Your task to perform on an android device: turn on the 24-hour format for clock Image 0: 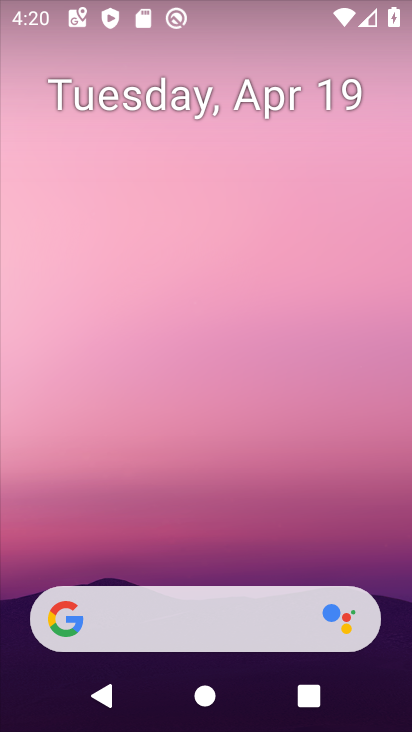
Step 0: drag from (244, 488) to (288, 80)
Your task to perform on an android device: turn on the 24-hour format for clock Image 1: 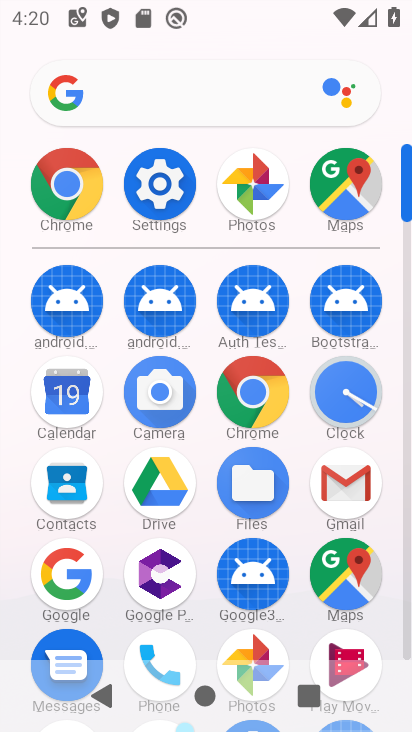
Step 1: click (347, 388)
Your task to perform on an android device: turn on the 24-hour format for clock Image 2: 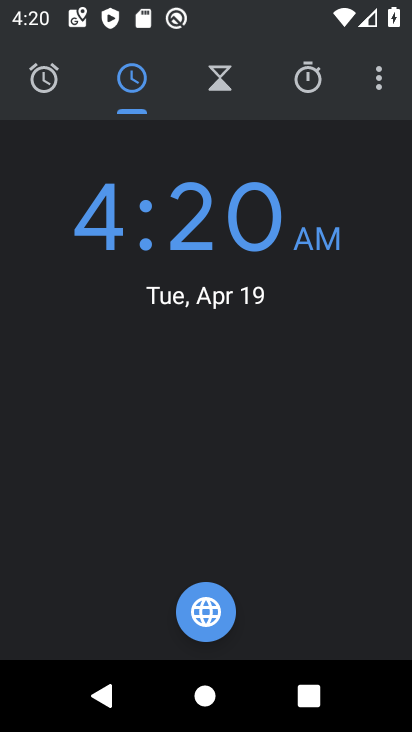
Step 2: click (382, 81)
Your task to perform on an android device: turn on the 24-hour format for clock Image 3: 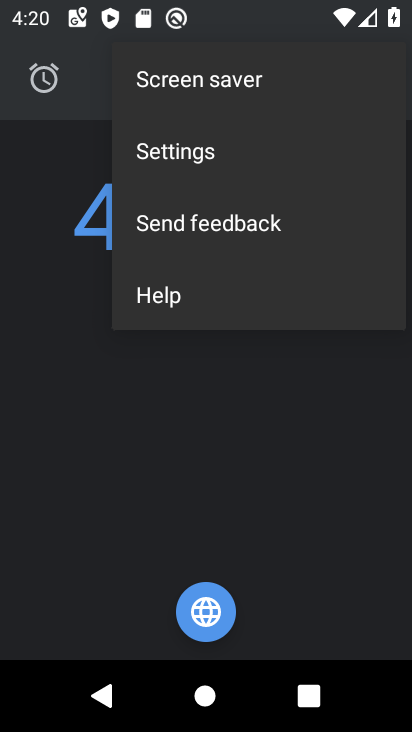
Step 3: click (190, 146)
Your task to perform on an android device: turn on the 24-hour format for clock Image 4: 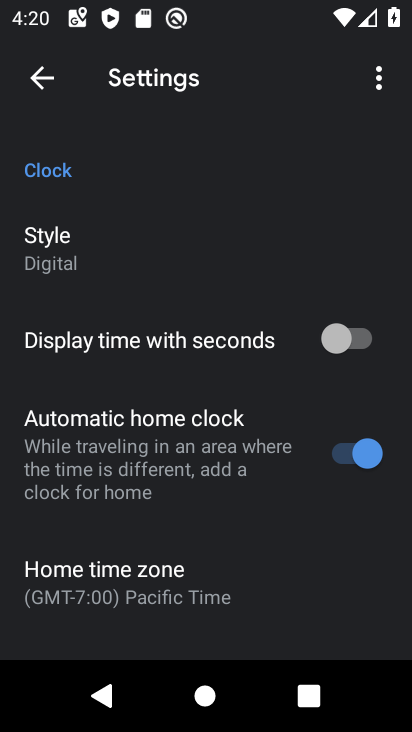
Step 4: drag from (134, 370) to (169, 266)
Your task to perform on an android device: turn on the 24-hour format for clock Image 5: 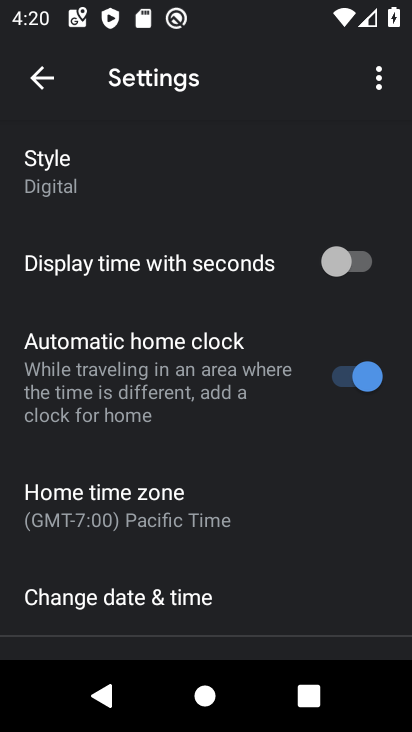
Step 5: drag from (95, 431) to (189, 288)
Your task to perform on an android device: turn on the 24-hour format for clock Image 6: 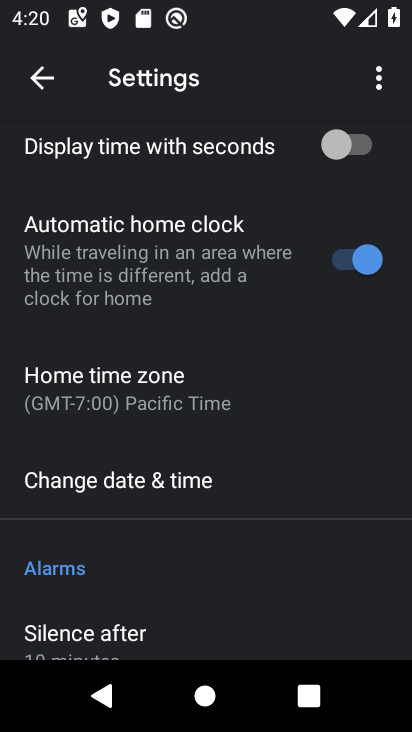
Step 6: click (103, 480)
Your task to perform on an android device: turn on the 24-hour format for clock Image 7: 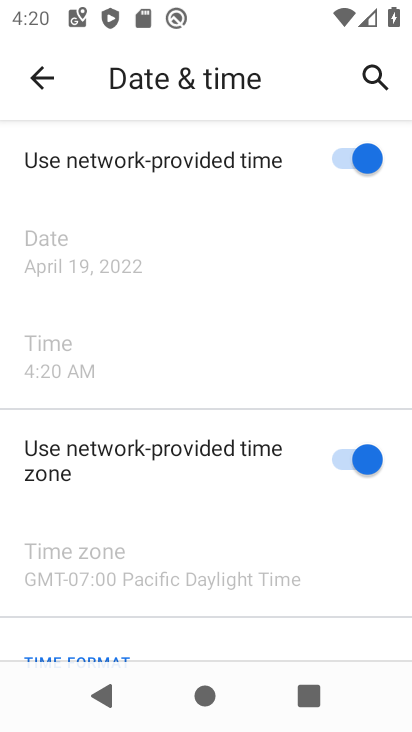
Step 7: drag from (125, 494) to (179, 378)
Your task to perform on an android device: turn on the 24-hour format for clock Image 8: 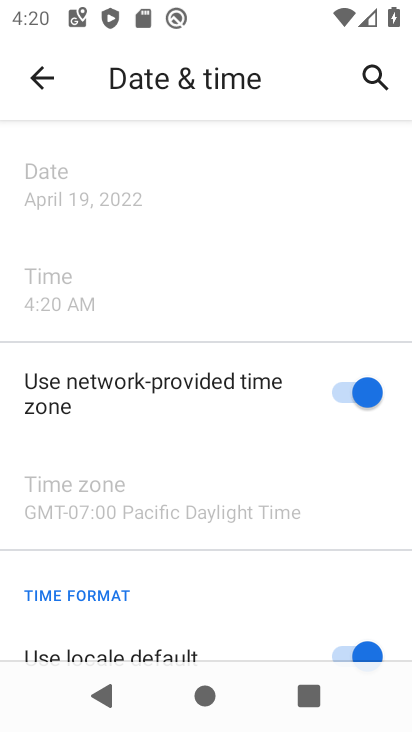
Step 8: drag from (133, 455) to (222, 326)
Your task to perform on an android device: turn on the 24-hour format for clock Image 9: 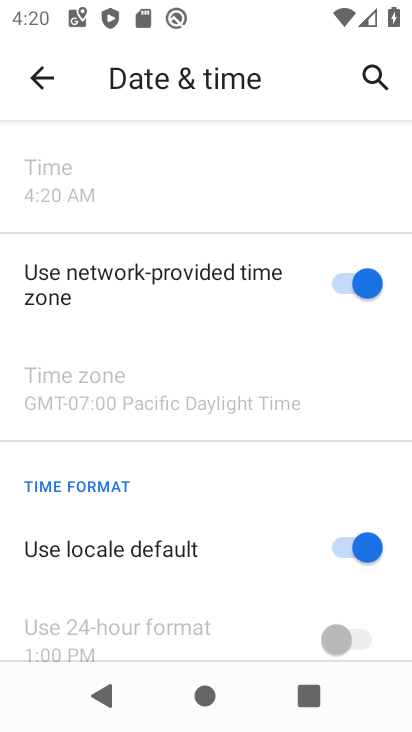
Step 9: drag from (142, 490) to (177, 418)
Your task to perform on an android device: turn on the 24-hour format for clock Image 10: 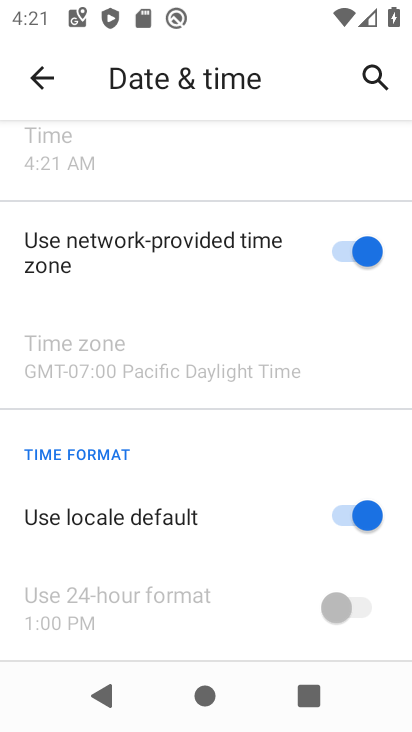
Step 10: click (348, 608)
Your task to perform on an android device: turn on the 24-hour format for clock Image 11: 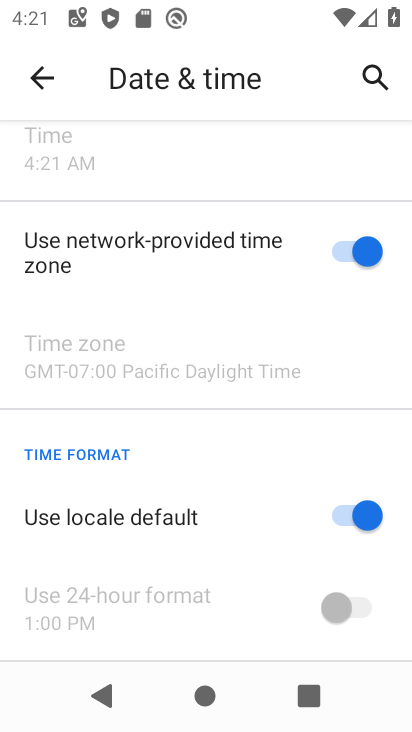
Step 11: click (374, 513)
Your task to perform on an android device: turn on the 24-hour format for clock Image 12: 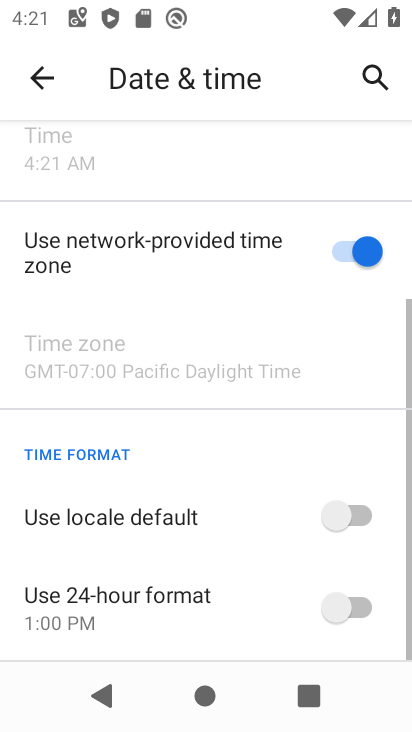
Step 12: click (338, 598)
Your task to perform on an android device: turn on the 24-hour format for clock Image 13: 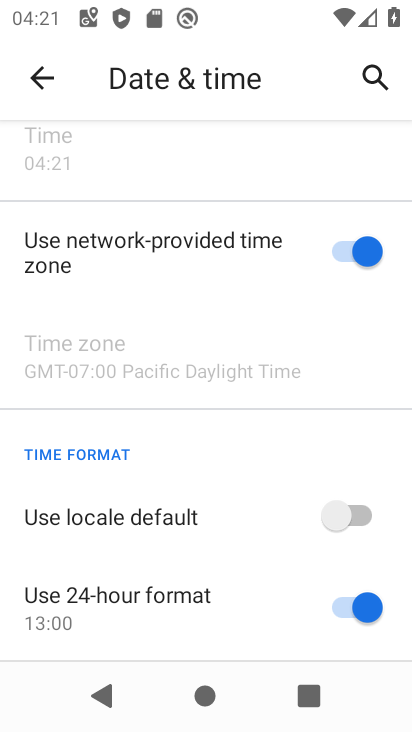
Step 13: task complete